Your task to perform on an android device: check the backup settings in the google photos Image 0: 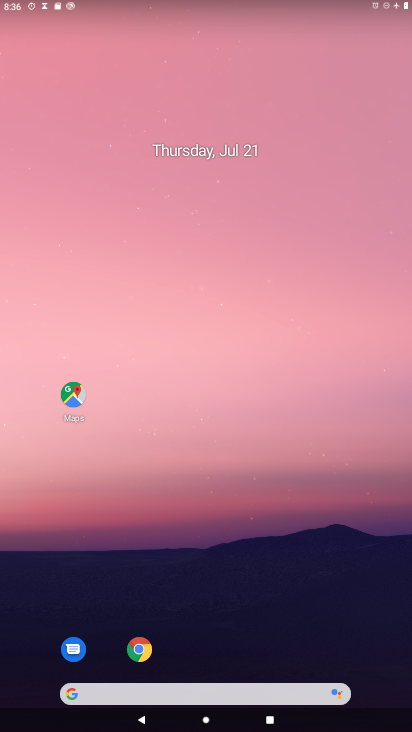
Step 0: drag from (315, 588) to (301, 1)
Your task to perform on an android device: check the backup settings in the google photos Image 1: 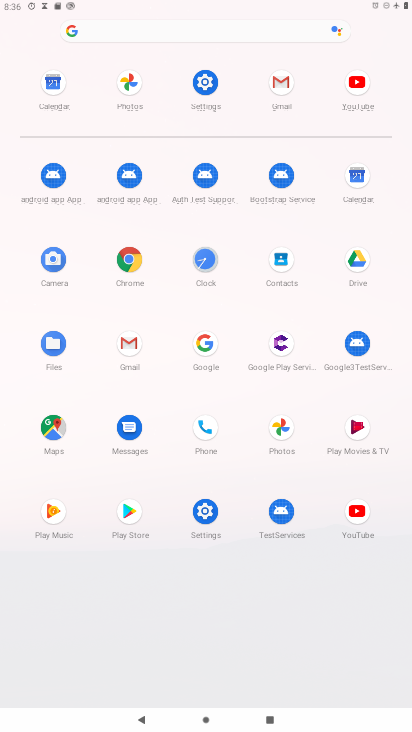
Step 1: click (273, 430)
Your task to perform on an android device: check the backup settings in the google photos Image 2: 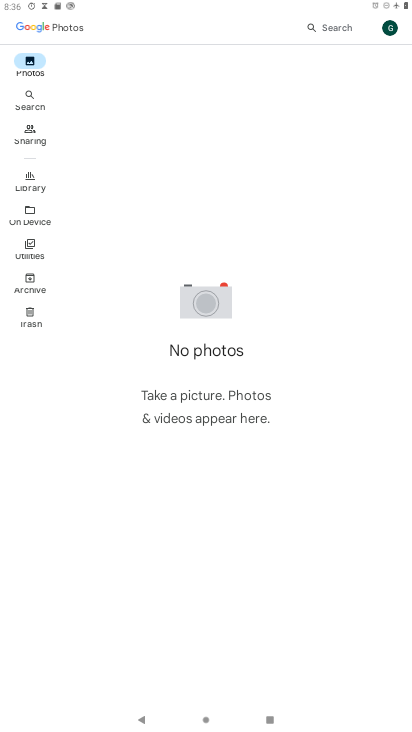
Step 2: click (389, 30)
Your task to perform on an android device: check the backup settings in the google photos Image 3: 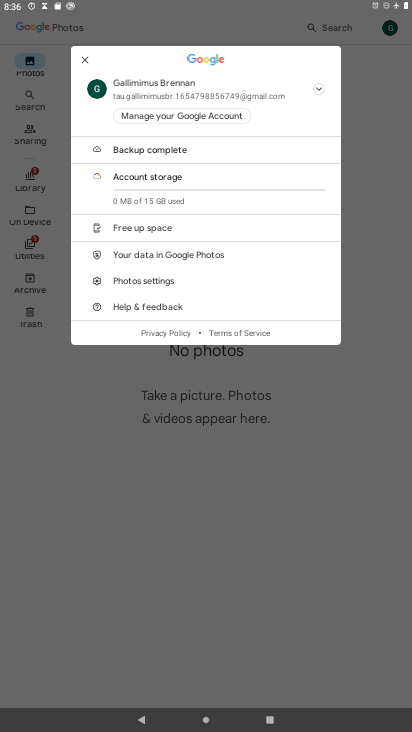
Step 3: click (138, 283)
Your task to perform on an android device: check the backup settings in the google photos Image 4: 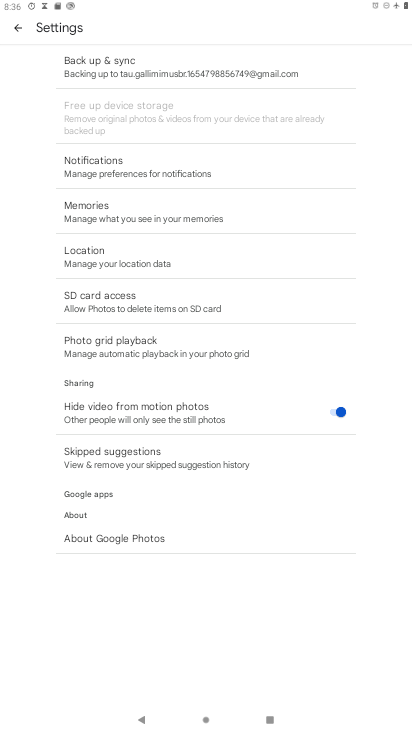
Step 4: click (153, 75)
Your task to perform on an android device: check the backup settings in the google photos Image 5: 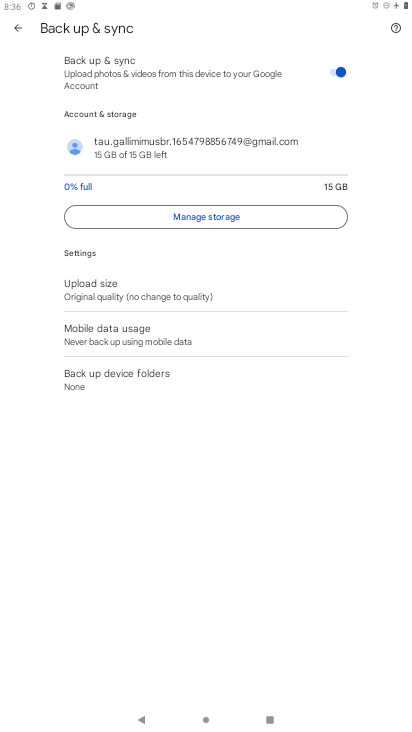
Step 5: task complete